Your task to perform on an android device: delete a single message in the gmail app Image 0: 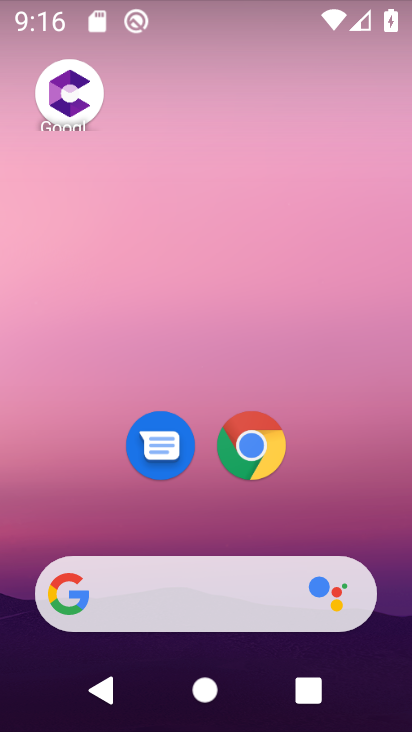
Step 0: drag from (209, 441) to (271, 71)
Your task to perform on an android device: delete a single message in the gmail app Image 1: 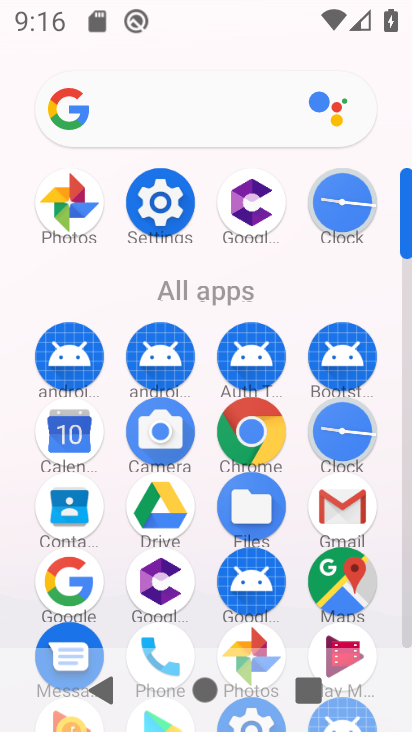
Step 1: click (358, 534)
Your task to perform on an android device: delete a single message in the gmail app Image 2: 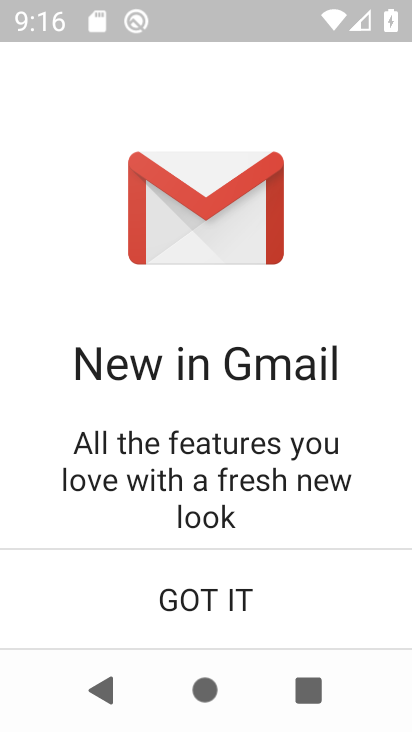
Step 2: click (185, 609)
Your task to perform on an android device: delete a single message in the gmail app Image 3: 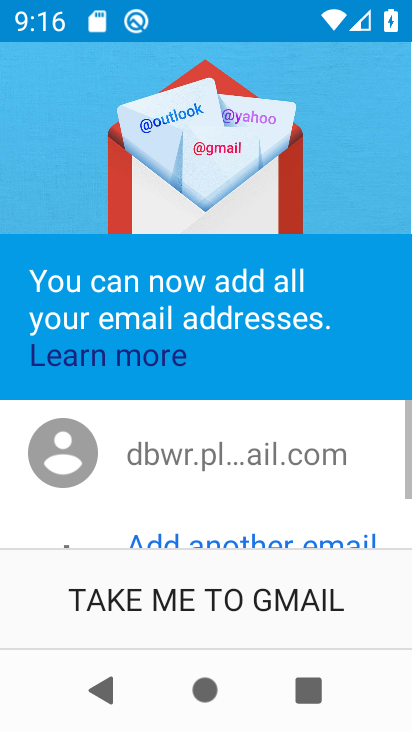
Step 3: click (185, 609)
Your task to perform on an android device: delete a single message in the gmail app Image 4: 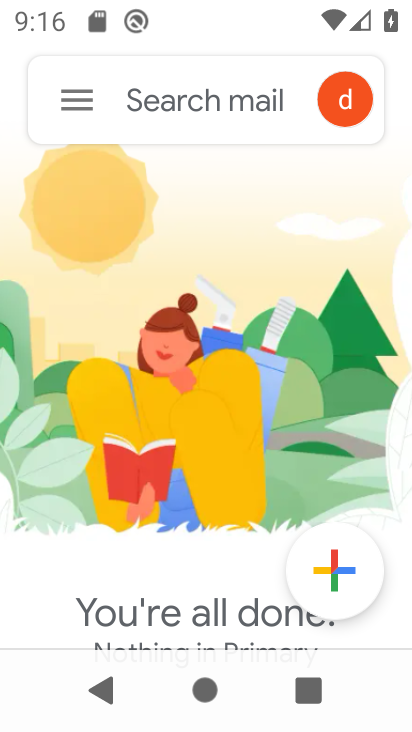
Step 4: task complete